Your task to perform on an android device: Go to calendar. Show me events next week Image 0: 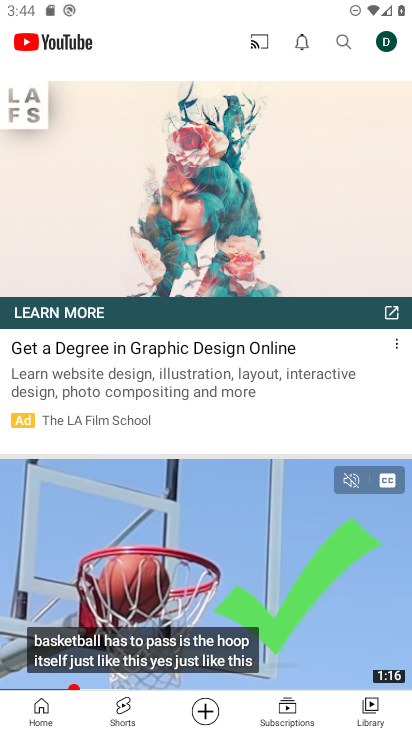
Step 0: press home button
Your task to perform on an android device: Go to calendar. Show me events next week Image 1: 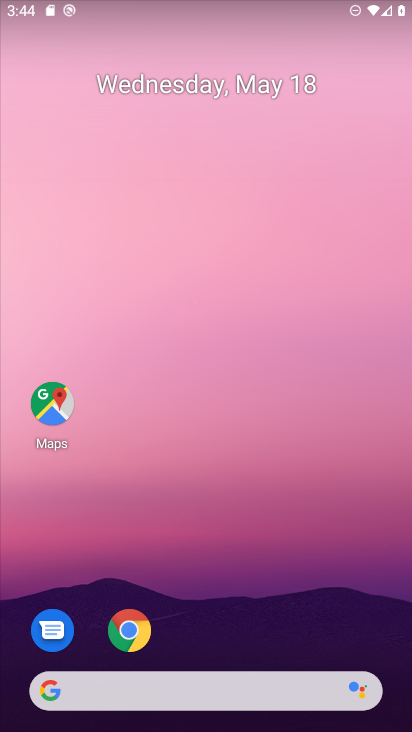
Step 1: drag from (213, 630) to (212, 45)
Your task to perform on an android device: Go to calendar. Show me events next week Image 2: 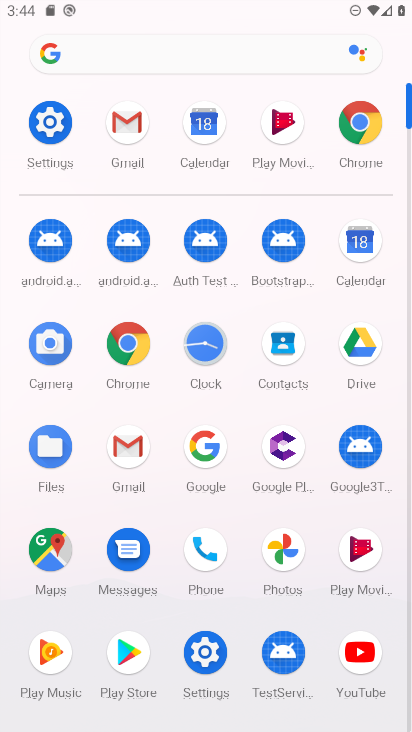
Step 2: click (358, 245)
Your task to perform on an android device: Go to calendar. Show me events next week Image 3: 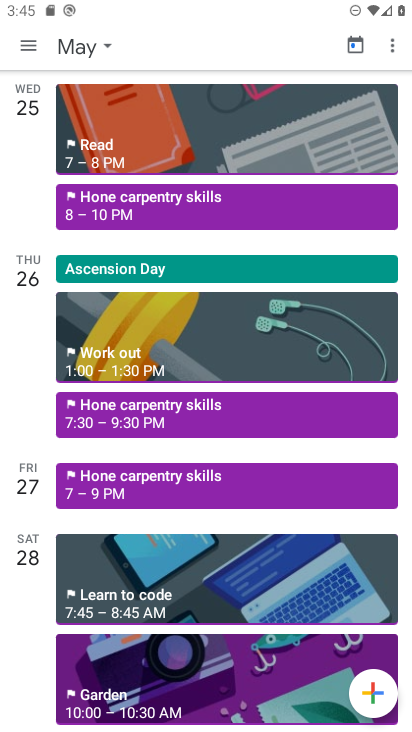
Step 3: click (103, 44)
Your task to perform on an android device: Go to calendar. Show me events next week Image 4: 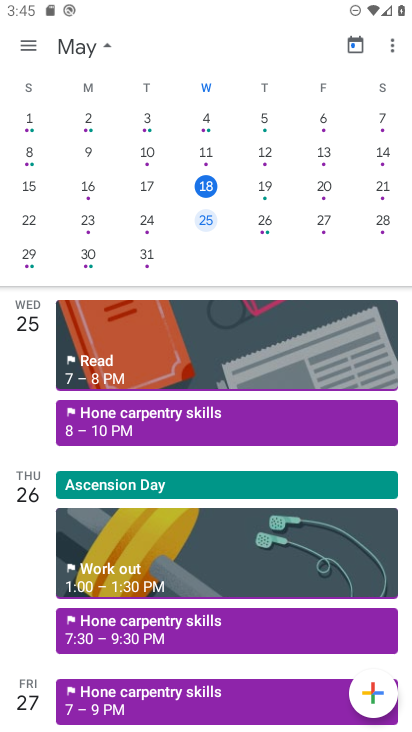
Step 4: click (29, 218)
Your task to perform on an android device: Go to calendar. Show me events next week Image 5: 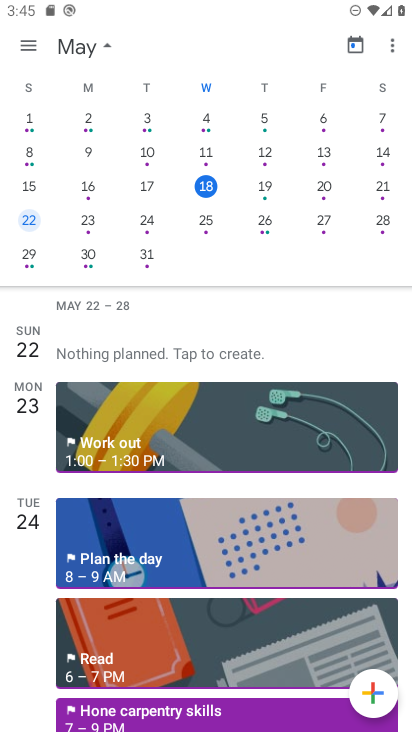
Step 5: click (34, 217)
Your task to perform on an android device: Go to calendar. Show me events next week Image 6: 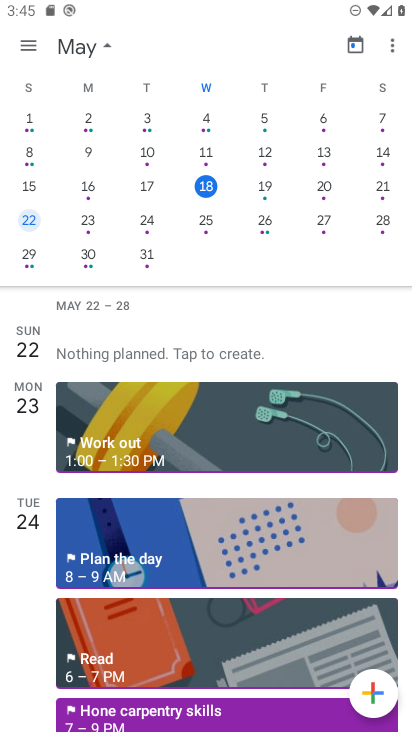
Step 6: click (100, 49)
Your task to perform on an android device: Go to calendar. Show me events next week Image 7: 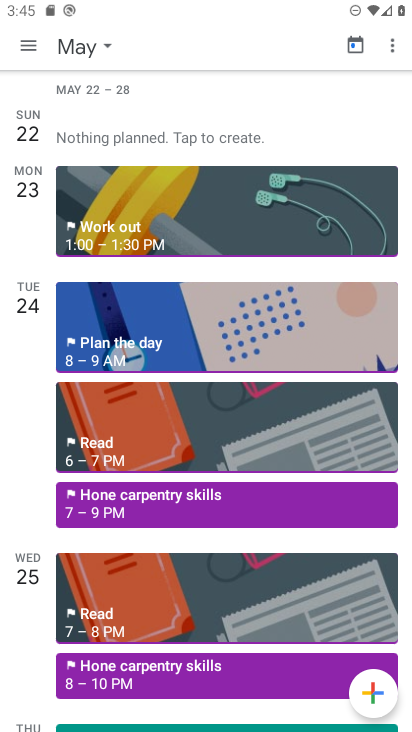
Step 7: drag from (33, 361) to (43, 124)
Your task to perform on an android device: Go to calendar. Show me events next week Image 8: 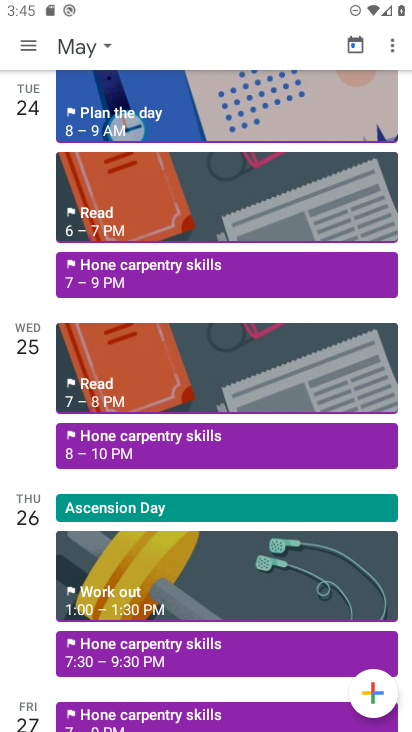
Step 8: drag from (26, 421) to (40, 152)
Your task to perform on an android device: Go to calendar. Show me events next week Image 9: 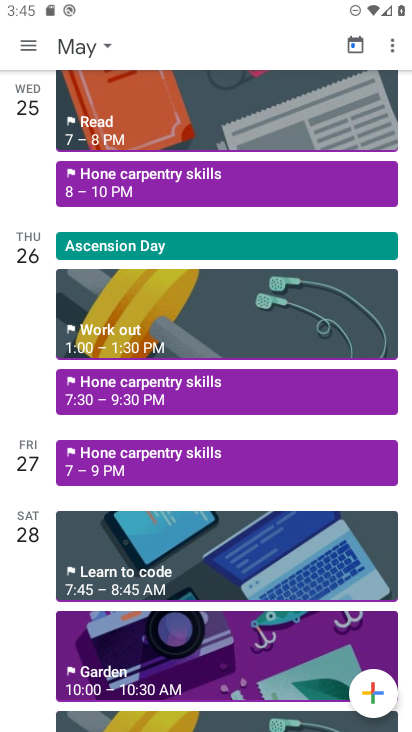
Step 9: drag from (24, 592) to (48, 310)
Your task to perform on an android device: Go to calendar. Show me events next week Image 10: 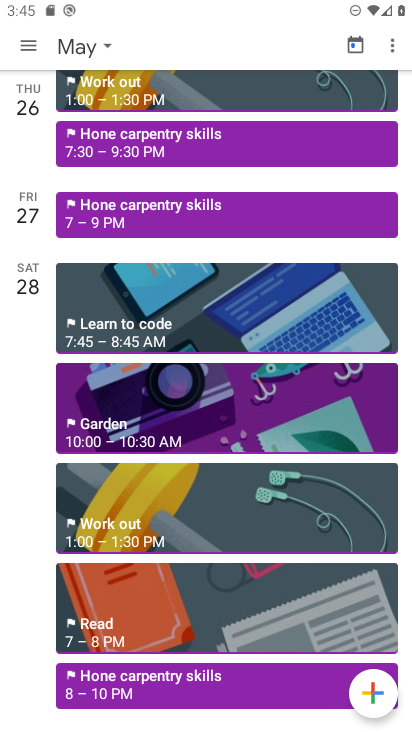
Step 10: click (49, 288)
Your task to perform on an android device: Go to calendar. Show me events next week Image 11: 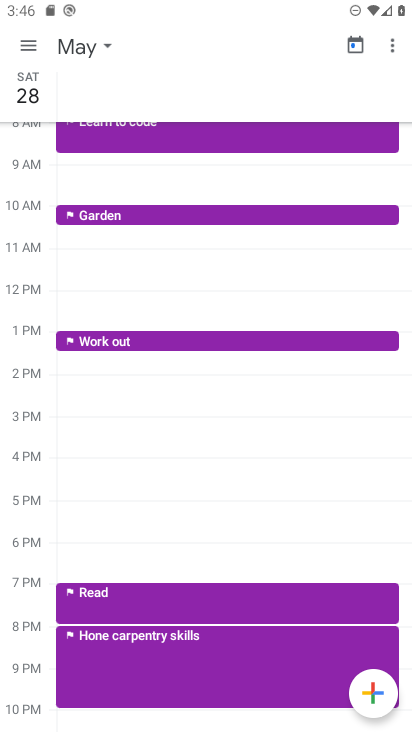
Step 11: click (34, 97)
Your task to perform on an android device: Go to calendar. Show me events next week Image 12: 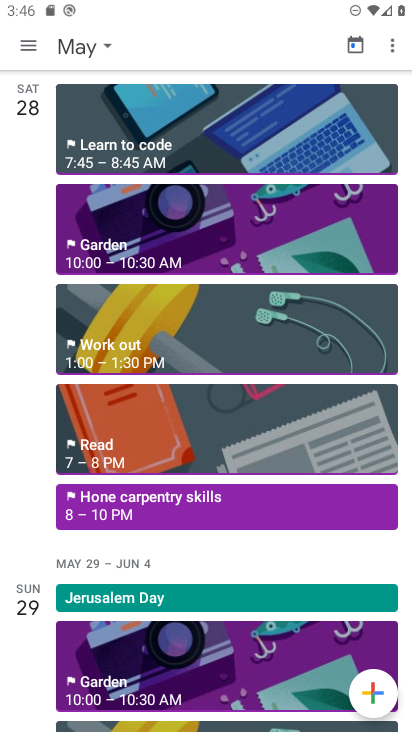
Step 12: task complete